Your task to perform on an android device: Go to internet settings Image 0: 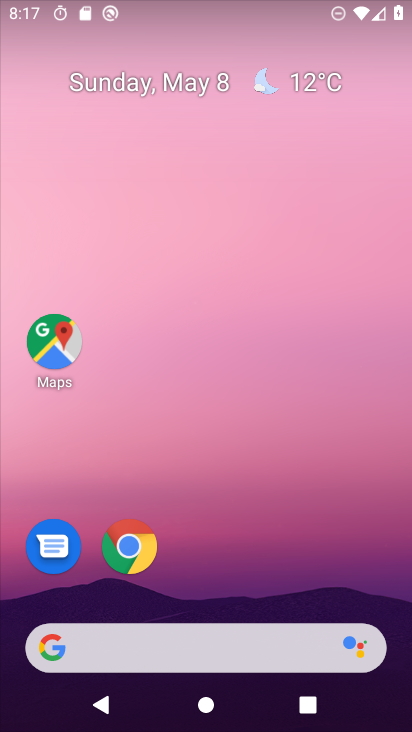
Step 0: drag from (248, 550) to (251, 1)
Your task to perform on an android device: Go to internet settings Image 1: 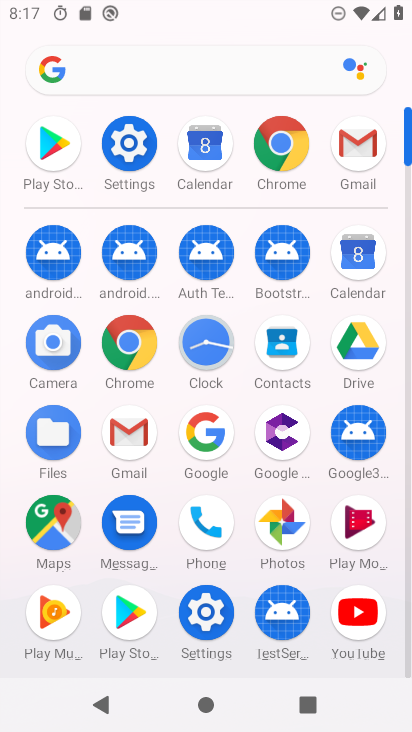
Step 1: click (121, 145)
Your task to perform on an android device: Go to internet settings Image 2: 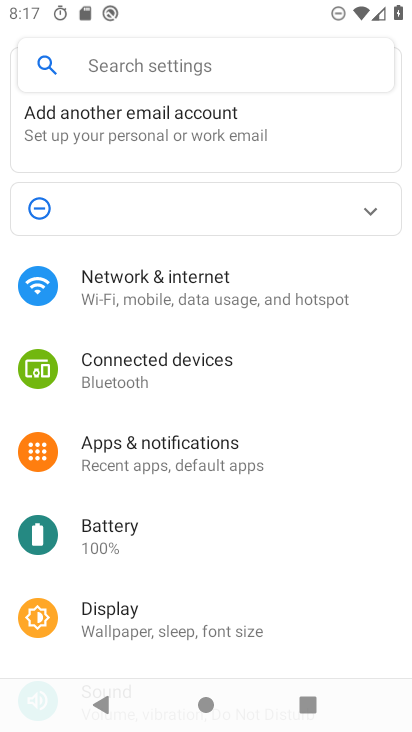
Step 2: click (213, 281)
Your task to perform on an android device: Go to internet settings Image 3: 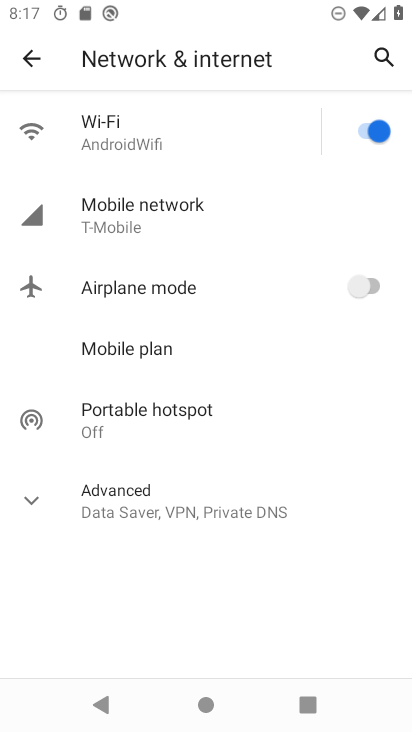
Step 3: task complete